Your task to perform on an android device: Go to Amazon Image 0: 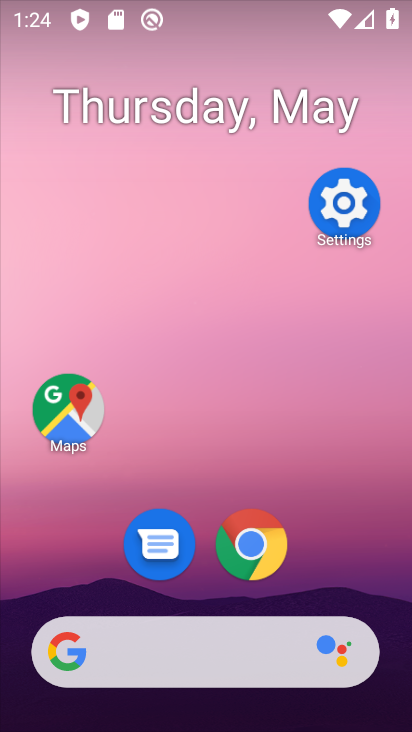
Step 0: click (239, 559)
Your task to perform on an android device: Go to Amazon Image 1: 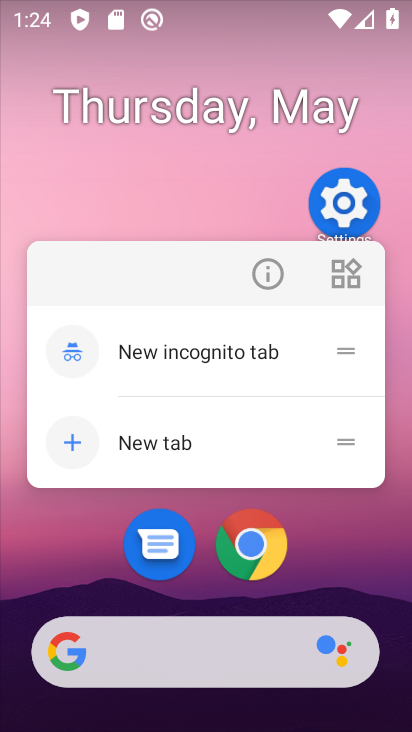
Step 1: click (234, 562)
Your task to perform on an android device: Go to Amazon Image 2: 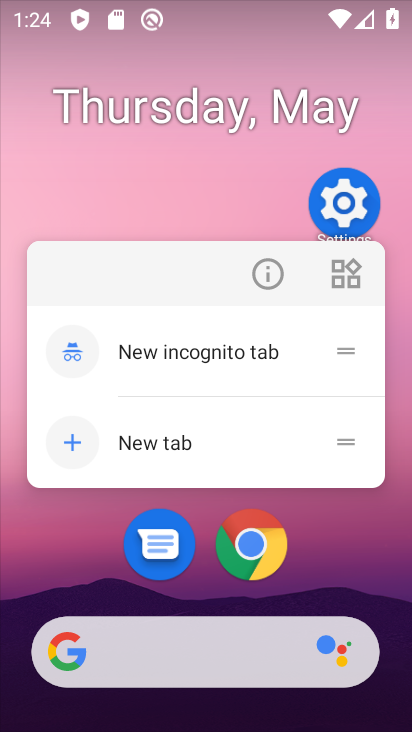
Step 2: click (260, 560)
Your task to perform on an android device: Go to Amazon Image 3: 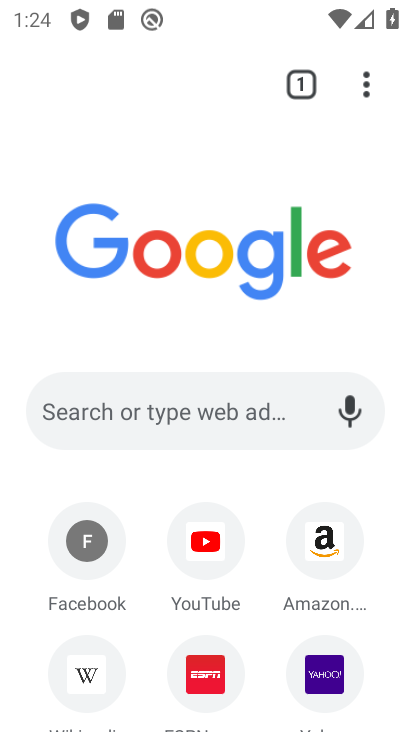
Step 3: click (309, 555)
Your task to perform on an android device: Go to Amazon Image 4: 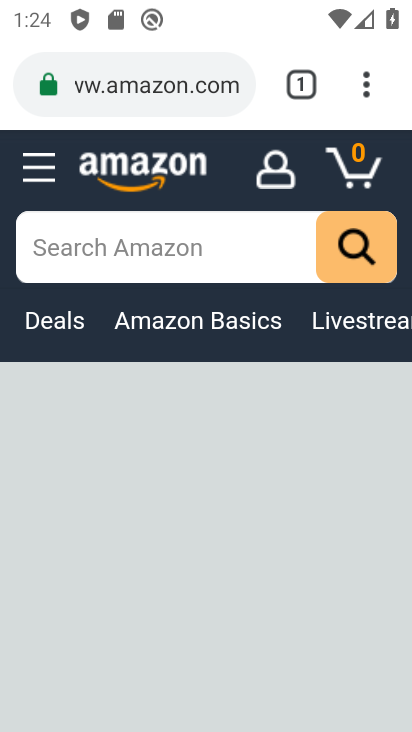
Step 4: task complete